Your task to perform on an android device: Open the phone app and click the voicemail tab. Image 0: 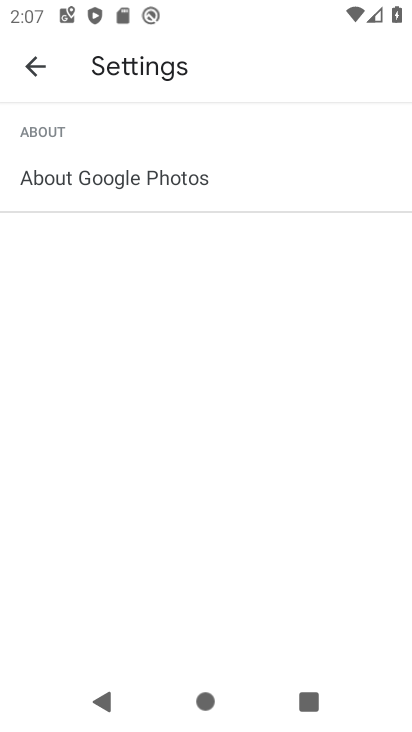
Step 0: press home button
Your task to perform on an android device: Open the phone app and click the voicemail tab. Image 1: 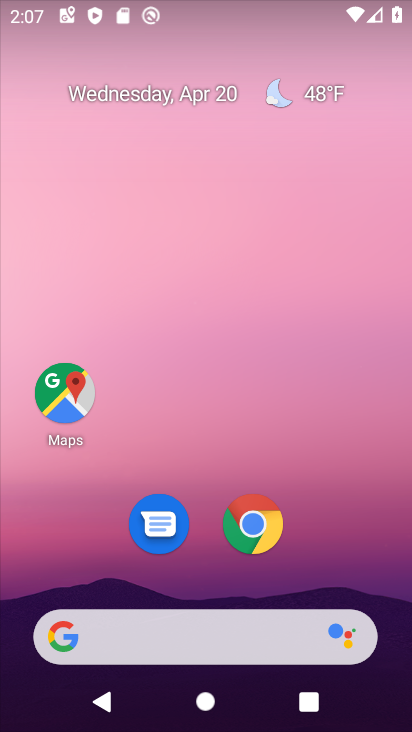
Step 1: drag from (328, 489) to (306, 49)
Your task to perform on an android device: Open the phone app and click the voicemail tab. Image 2: 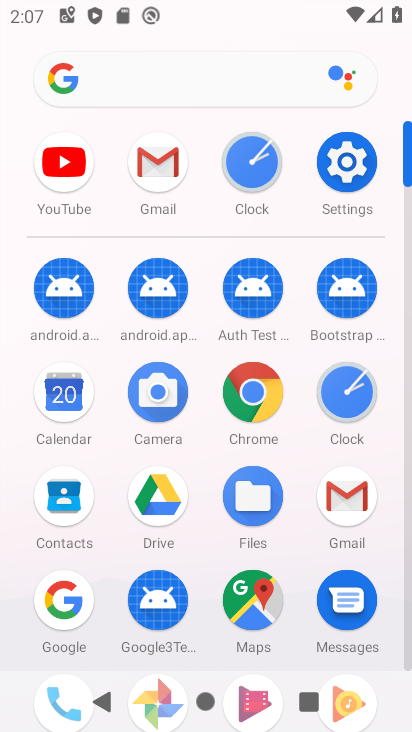
Step 2: drag from (201, 412) to (246, 22)
Your task to perform on an android device: Open the phone app and click the voicemail tab. Image 3: 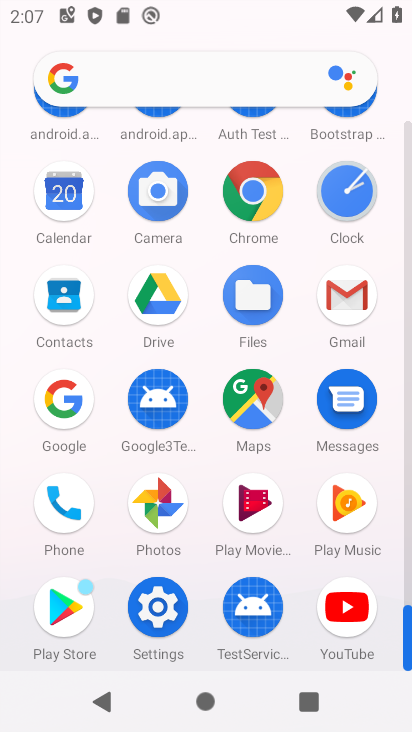
Step 3: click (58, 481)
Your task to perform on an android device: Open the phone app and click the voicemail tab. Image 4: 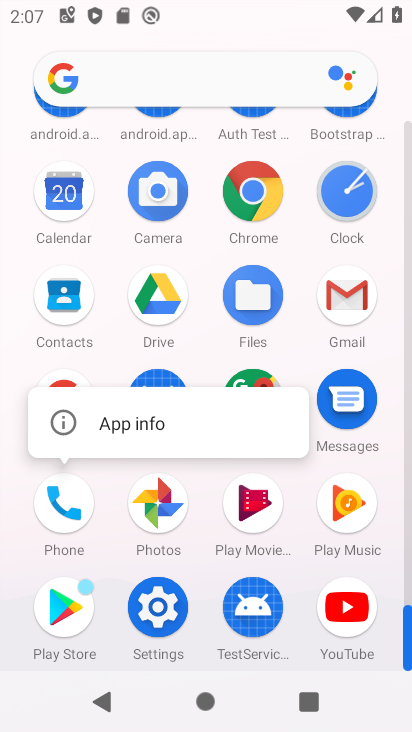
Step 4: click (58, 492)
Your task to perform on an android device: Open the phone app and click the voicemail tab. Image 5: 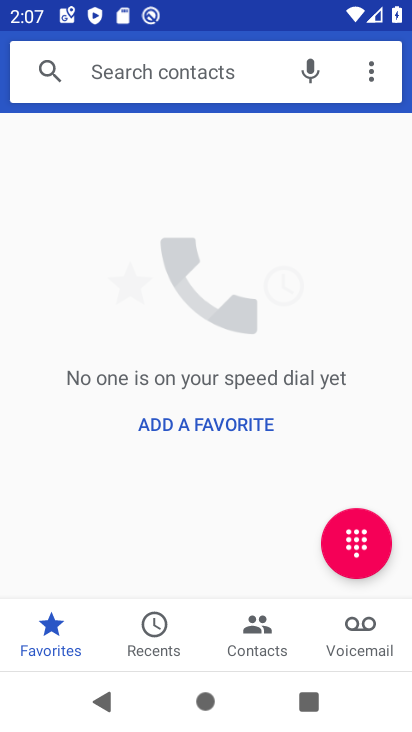
Step 5: click (355, 639)
Your task to perform on an android device: Open the phone app and click the voicemail tab. Image 6: 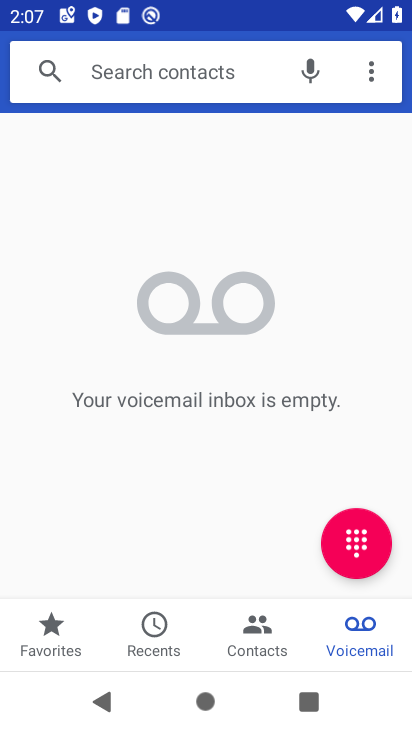
Step 6: task complete